Your task to perform on an android device: Open Yahoo.com Image 0: 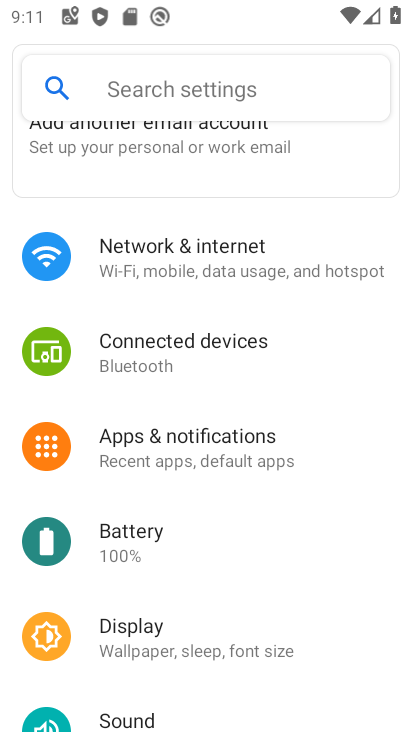
Step 0: press home button
Your task to perform on an android device: Open Yahoo.com Image 1: 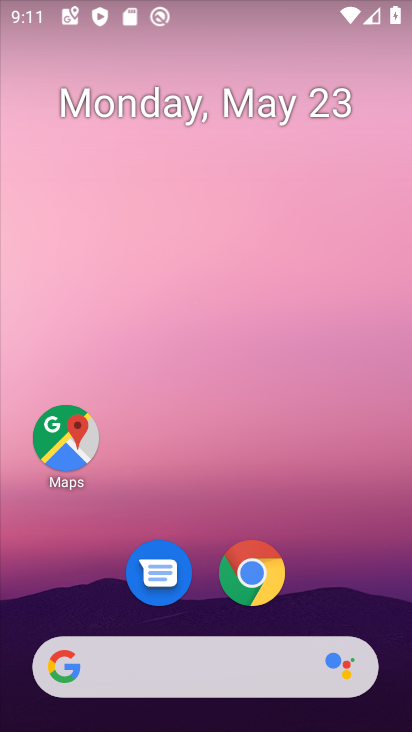
Step 1: drag from (344, 578) to (379, 255)
Your task to perform on an android device: Open Yahoo.com Image 2: 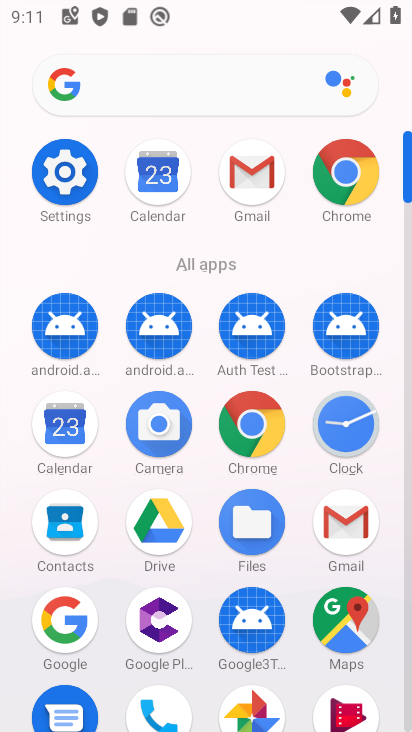
Step 2: click (272, 430)
Your task to perform on an android device: Open Yahoo.com Image 3: 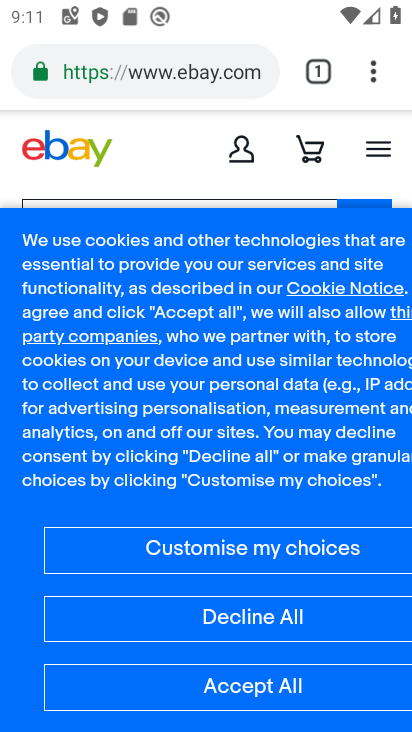
Step 3: press back button
Your task to perform on an android device: Open Yahoo.com Image 4: 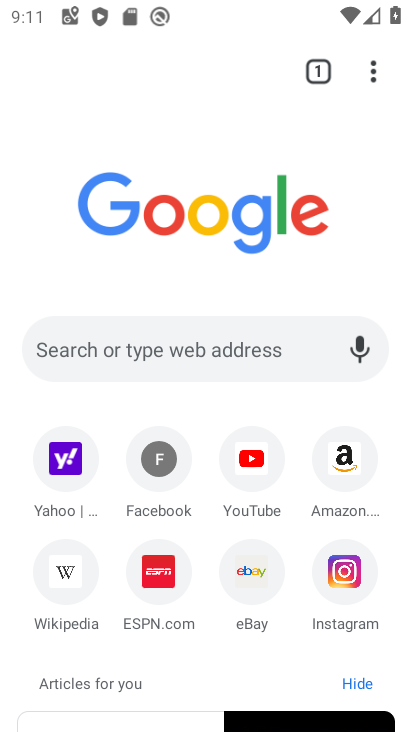
Step 4: click (50, 494)
Your task to perform on an android device: Open Yahoo.com Image 5: 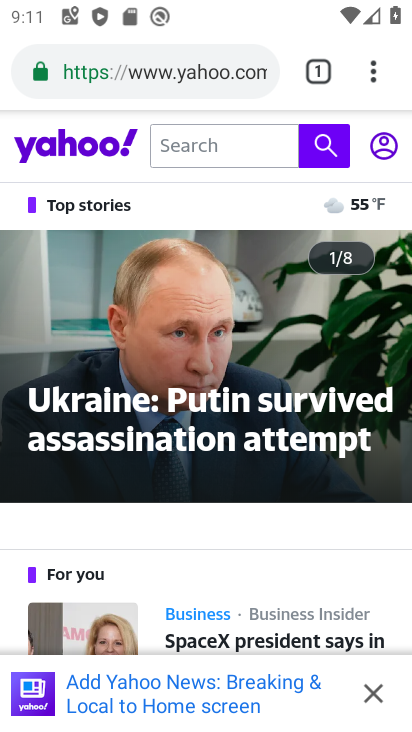
Step 5: task complete